Your task to perform on an android device: change keyboard looks Image 0: 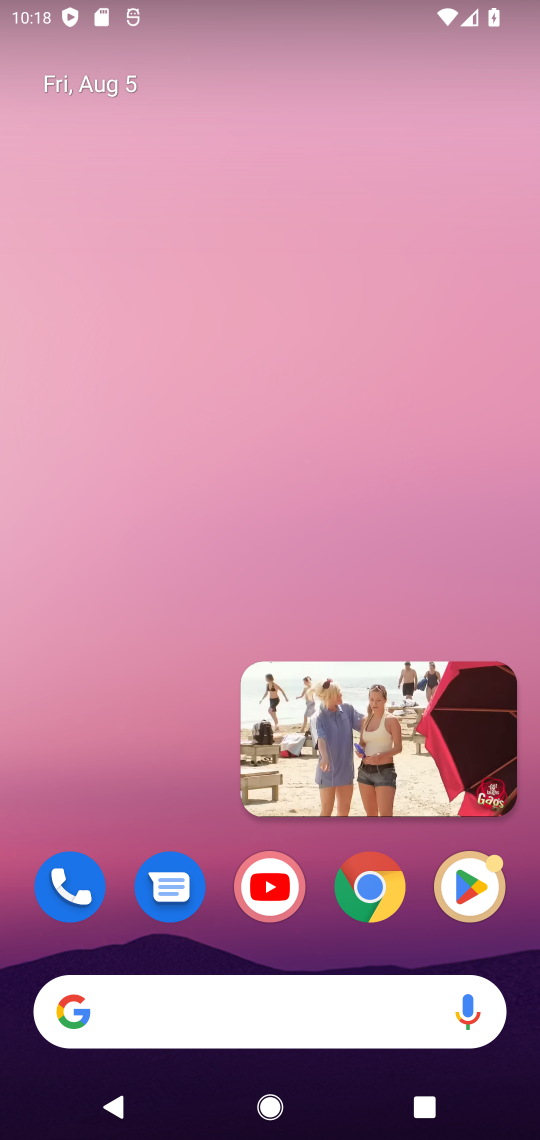
Step 0: click (502, 682)
Your task to perform on an android device: change keyboard looks Image 1: 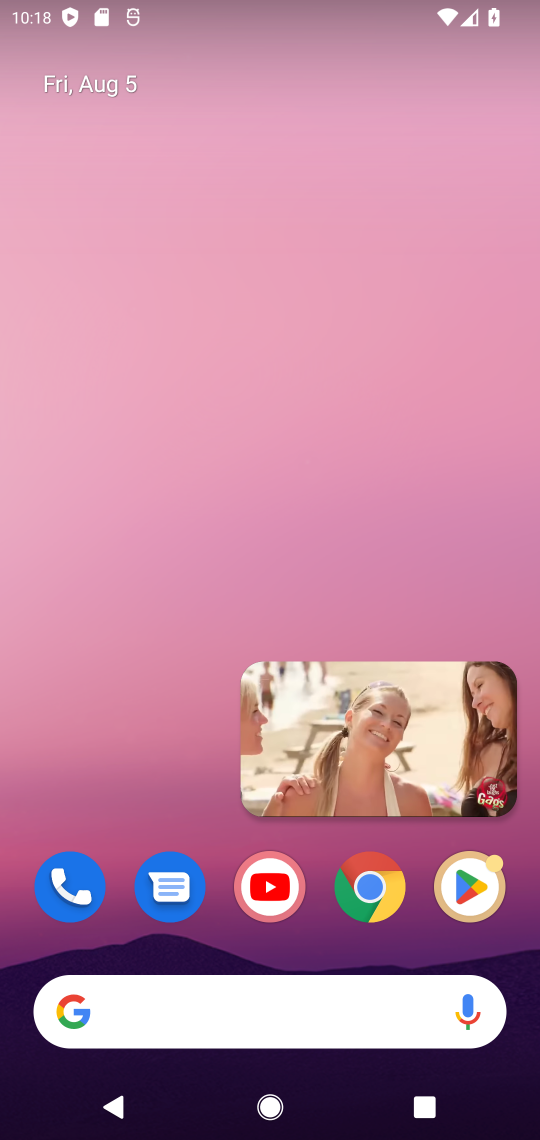
Step 1: click (501, 689)
Your task to perform on an android device: change keyboard looks Image 2: 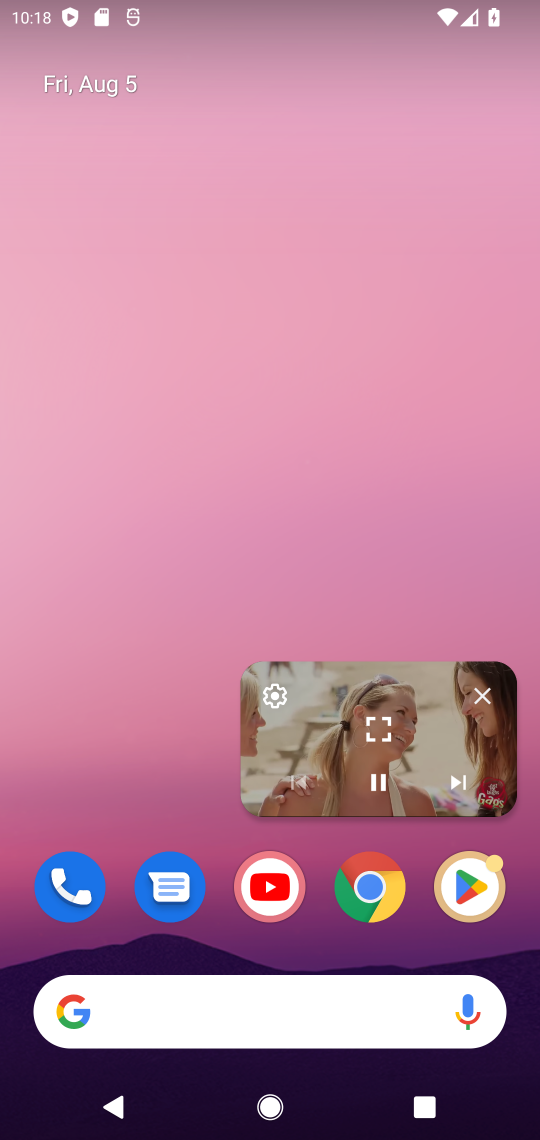
Step 2: click (412, 709)
Your task to perform on an android device: change keyboard looks Image 3: 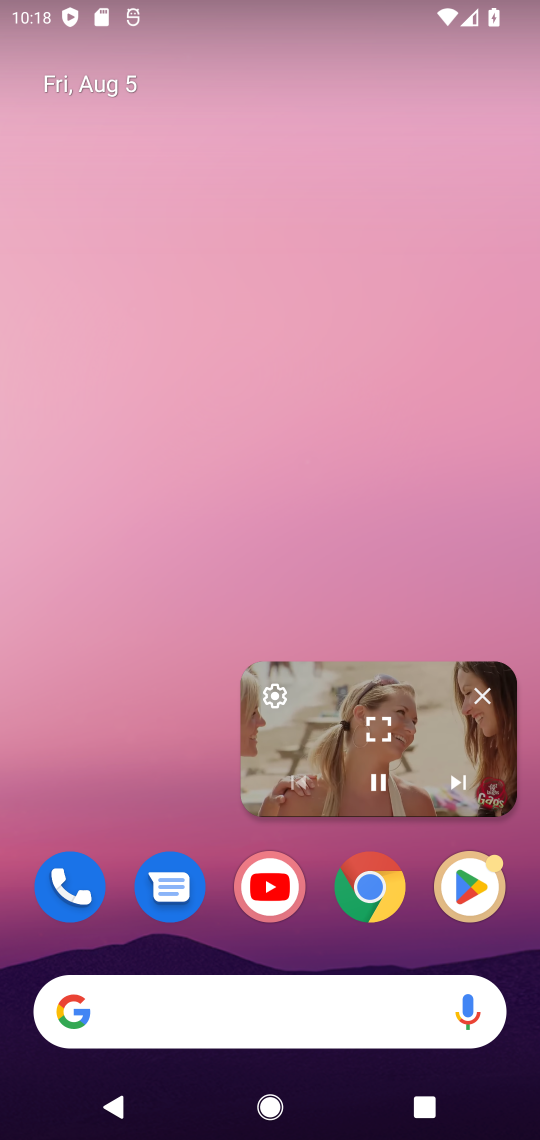
Step 3: click (492, 699)
Your task to perform on an android device: change keyboard looks Image 4: 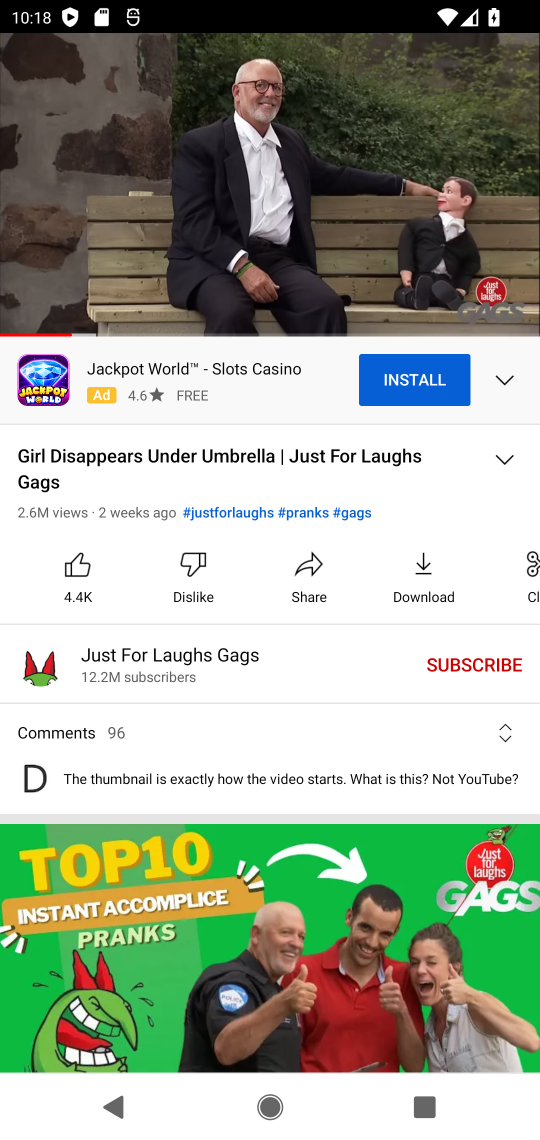
Step 4: click (397, 154)
Your task to perform on an android device: change keyboard looks Image 5: 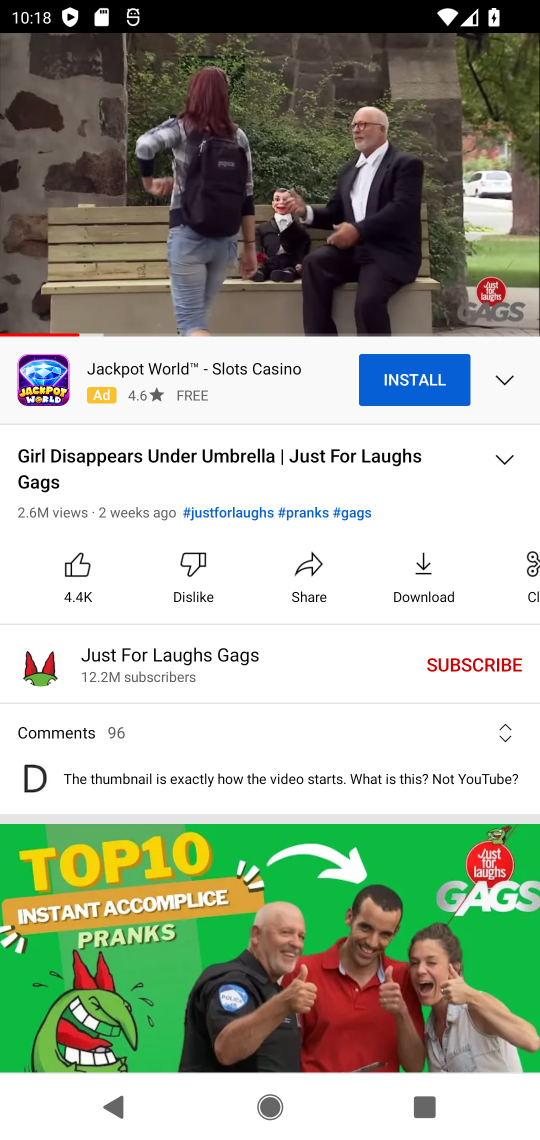
Step 5: press home button
Your task to perform on an android device: change keyboard looks Image 6: 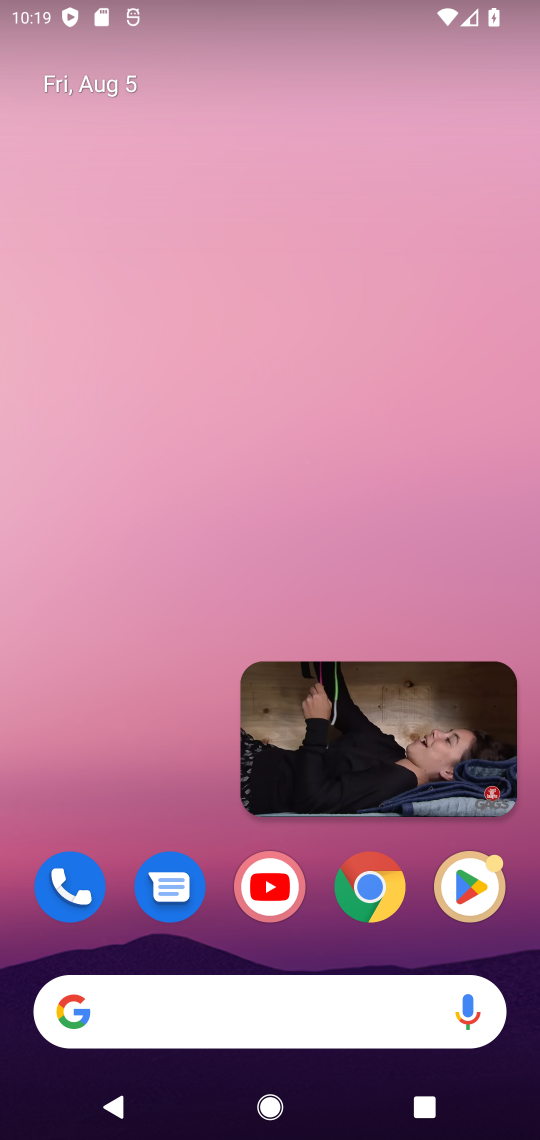
Step 6: click (509, 707)
Your task to perform on an android device: change keyboard looks Image 7: 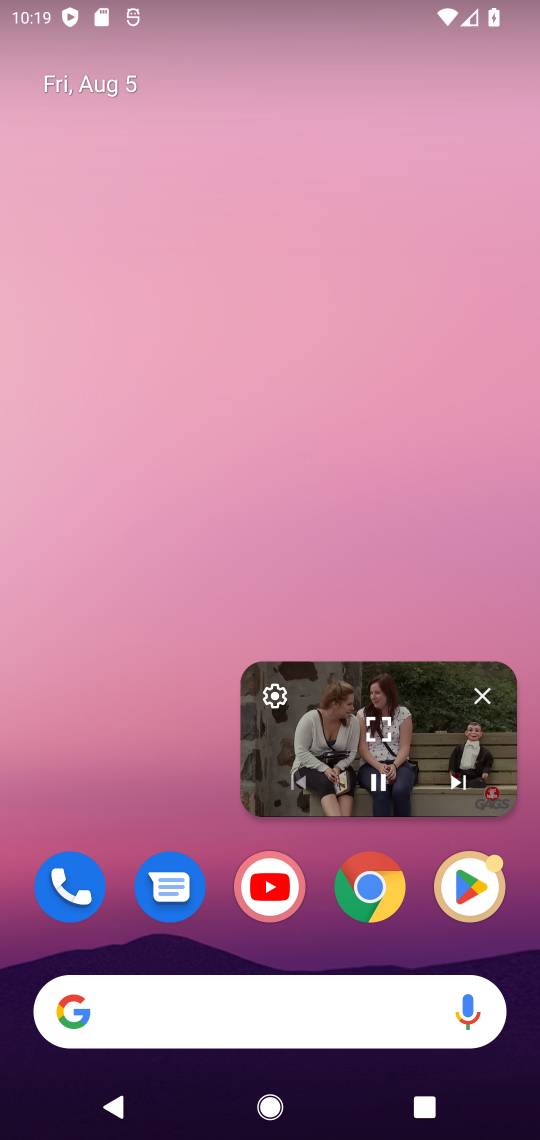
Step 7: click (485, 687)
Your task to perform on an android device: change keyboard looks Image 8: 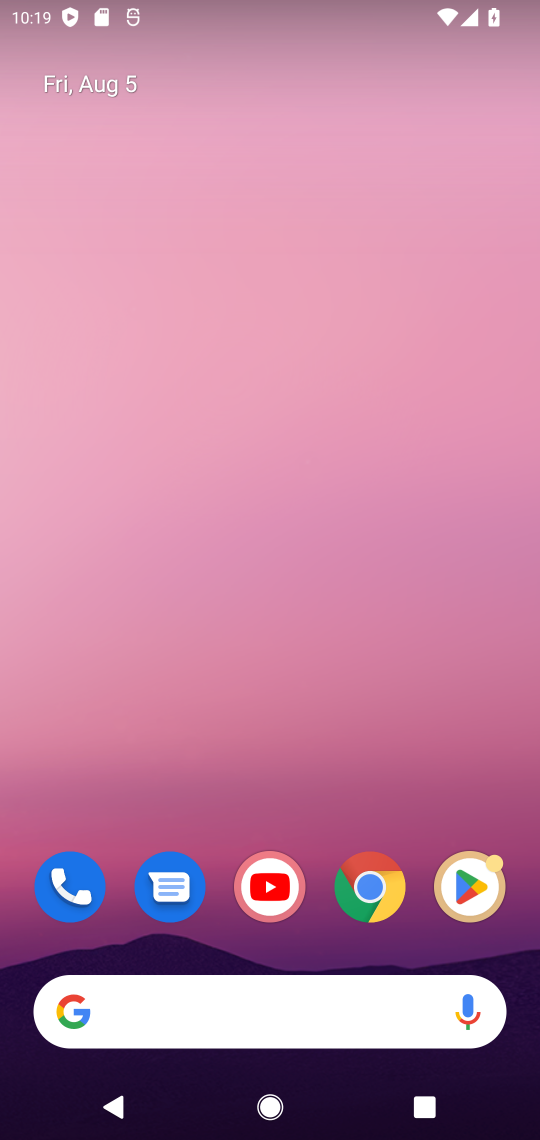
Step 8: drag from (324, 876) to (296, 188)
Your task to perform on an android device: change keyboard looks Image 9: 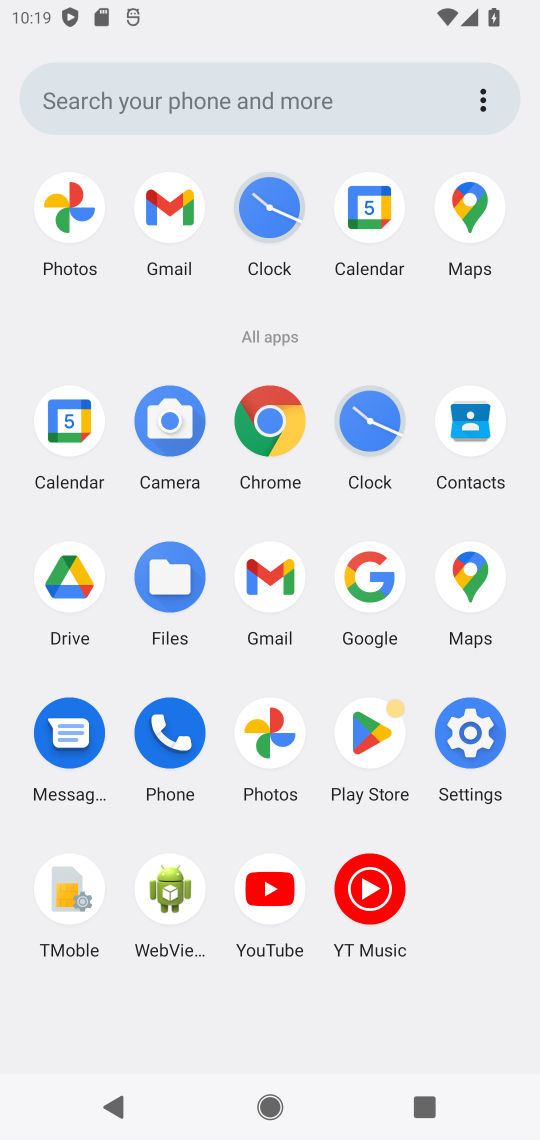
Step 9: click (465, 752)
Your task to perform on an android device: change keyboard looks Image 10: 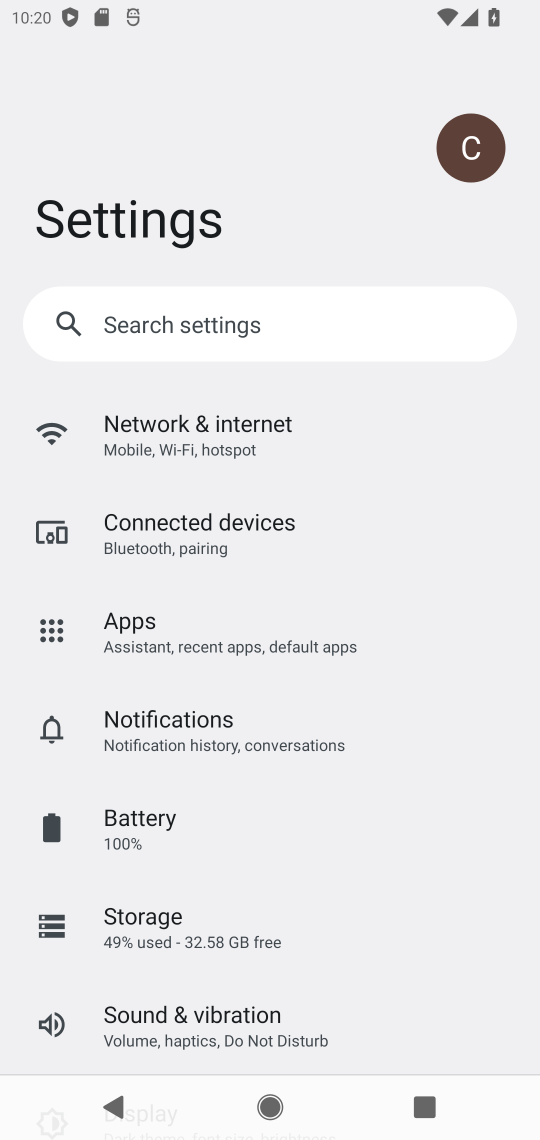
Step 10: drag from (432, 853) to (323, 84)
Your task to perform on an android device: change keyboard looks Image 11: 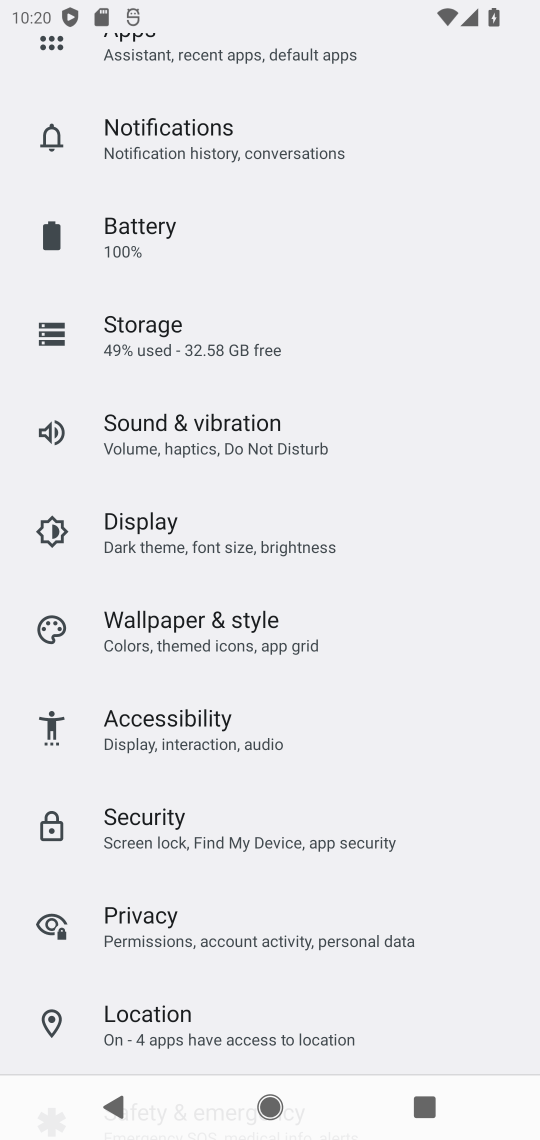
Step 11: drag from (394, 1005) to (371, 52)
Your task to perform on an android device: change keyboard looks Image 12: 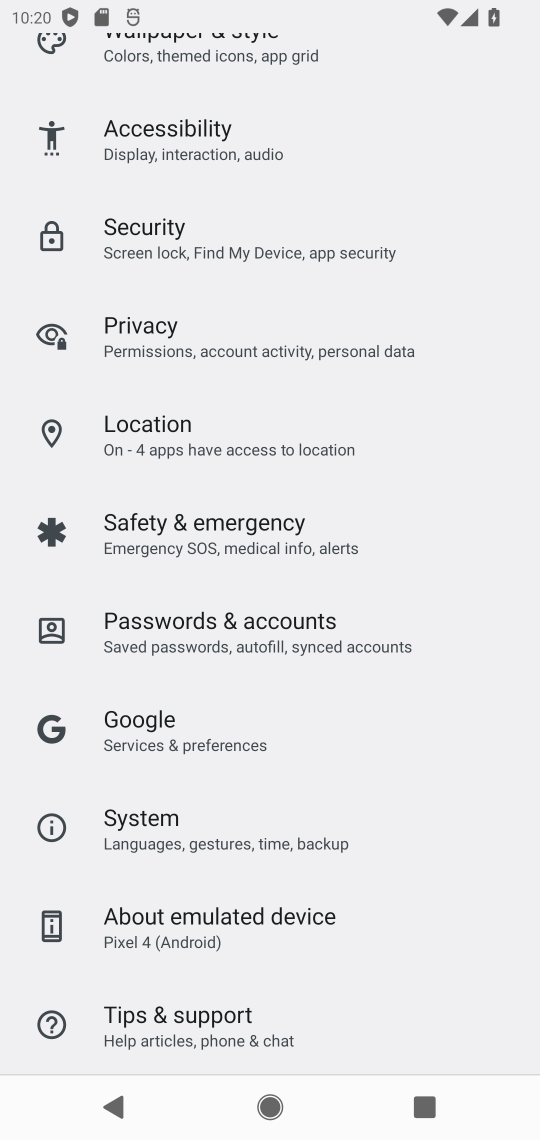
Step 12: click (150, 822)
Your task to perform on an android device: change keyboard looks Image 13: 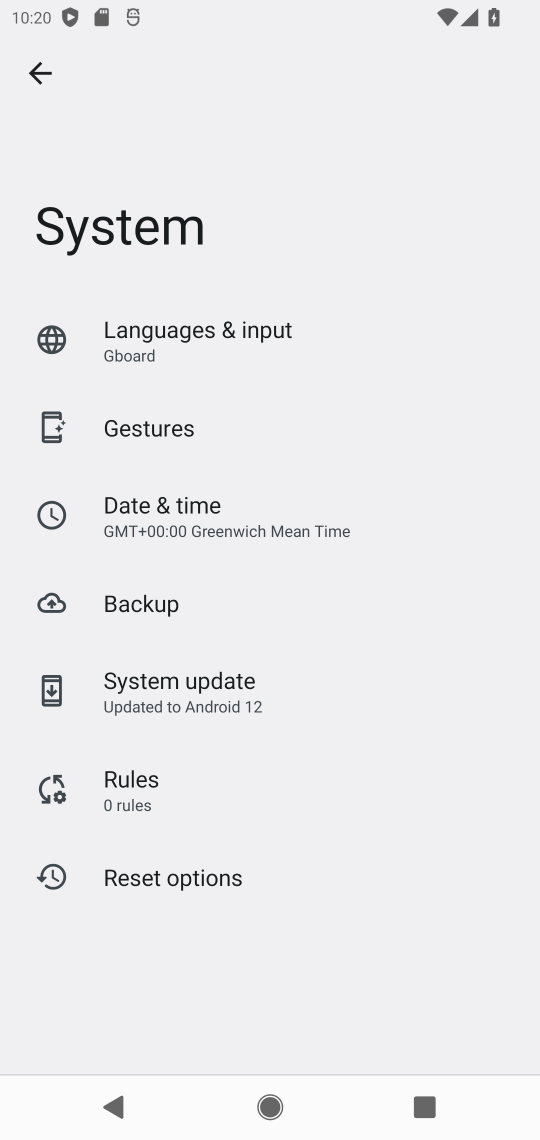
Step 13: click (193, 337)
Your task to perform on an android device: change keyboard looks Image 14: 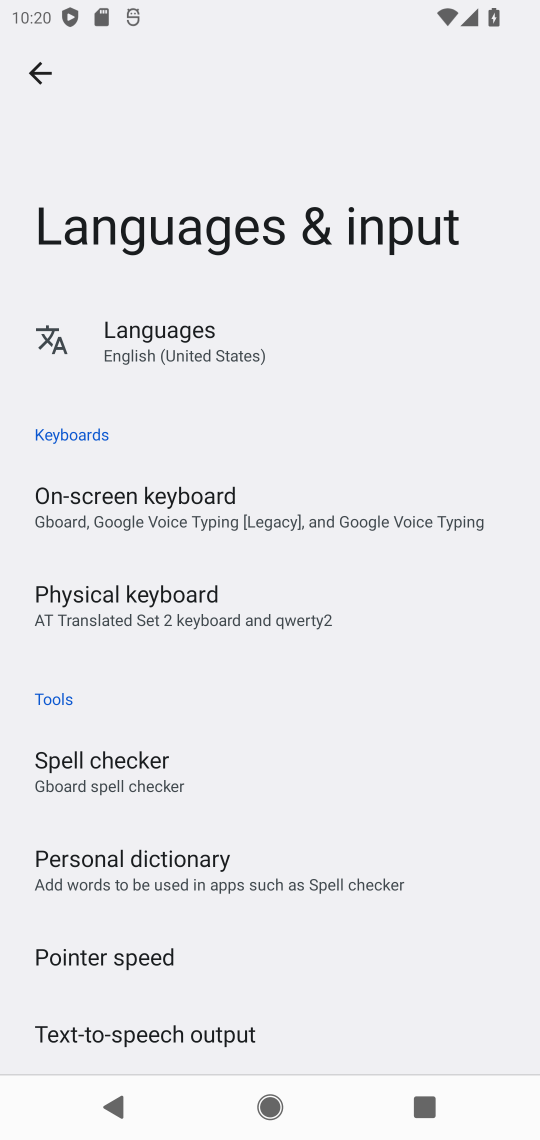
Step 14: click (125, 514)
Your task to perform on an android device: change keyboard looks Image 15: 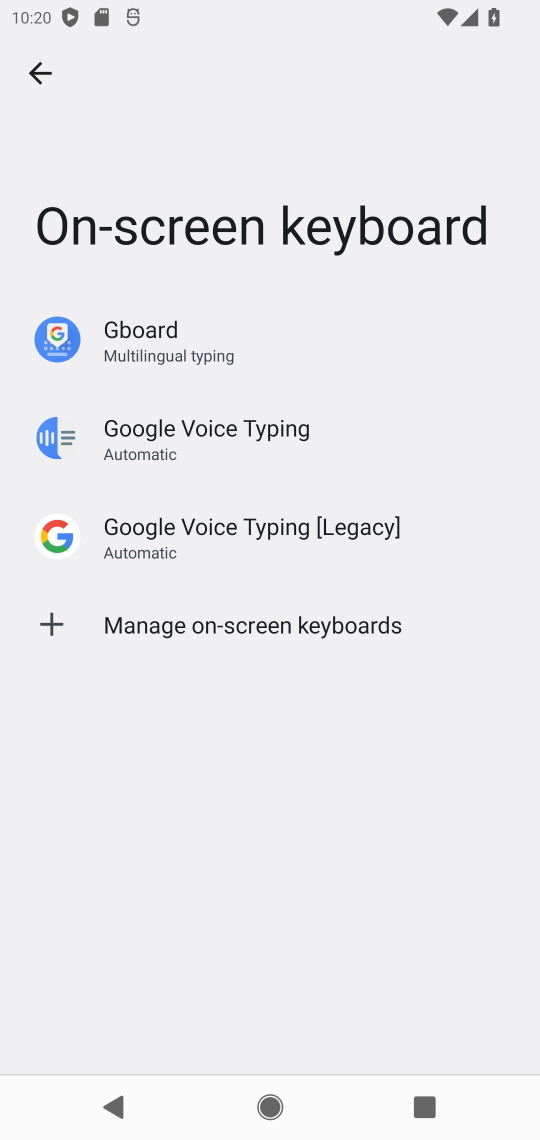
Step 15: click (133, 340)
Your task to perform on an android device: change keyboard looks Image 16: 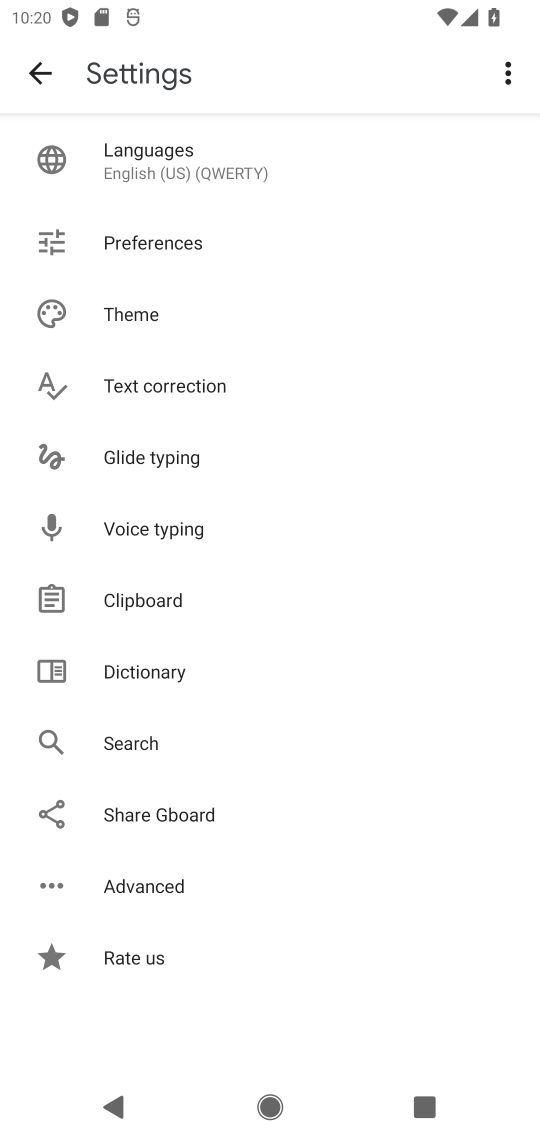
Step 16: click (126, 315)
Your task to perform on an android device: change keyboard looks Image 17: 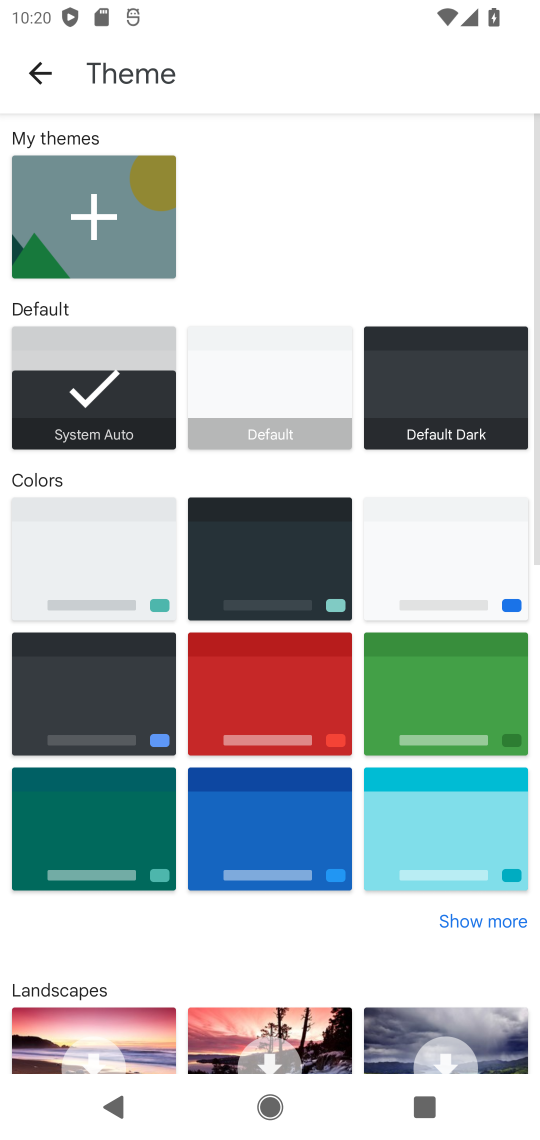
Step 17: click (291, 826)
Your task to perform on an android device: change keyboard looks Image 18: 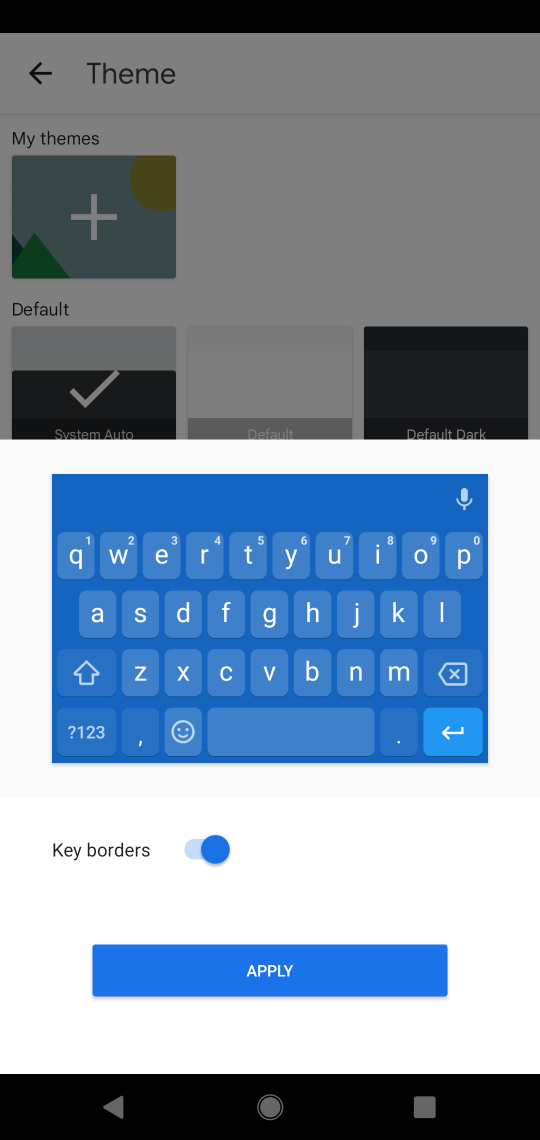
Step 18: click (195, 980)
Your task to perform on an android device: change keyboard looks Image 19: 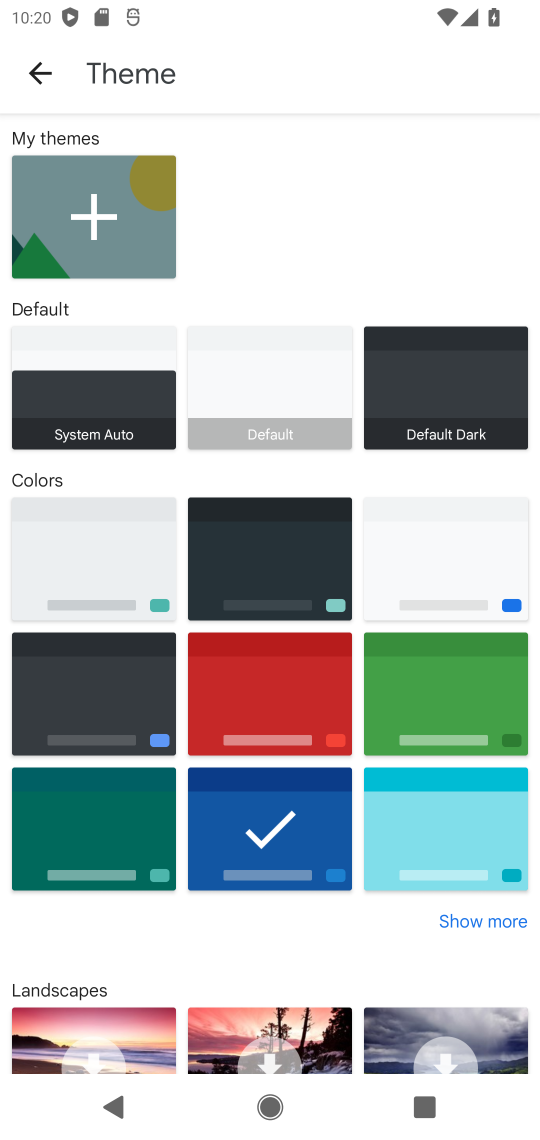
Step 19: task complete